Your task to perform on an android device: What's on my calendar today? Image 0: 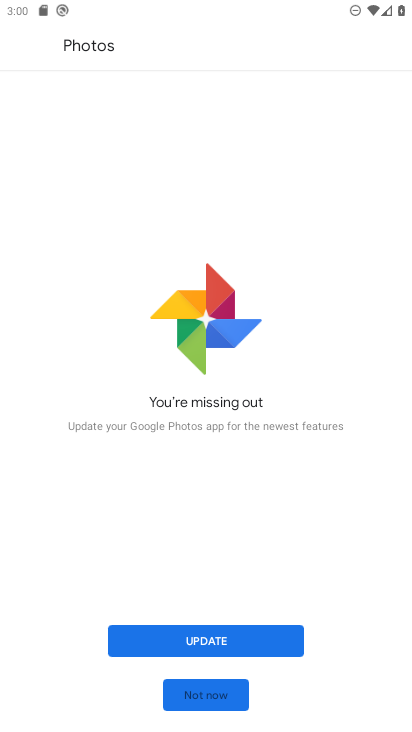
Step 0: press home button
Your task to perform on an android device: What's on my calendar today? Image 1: 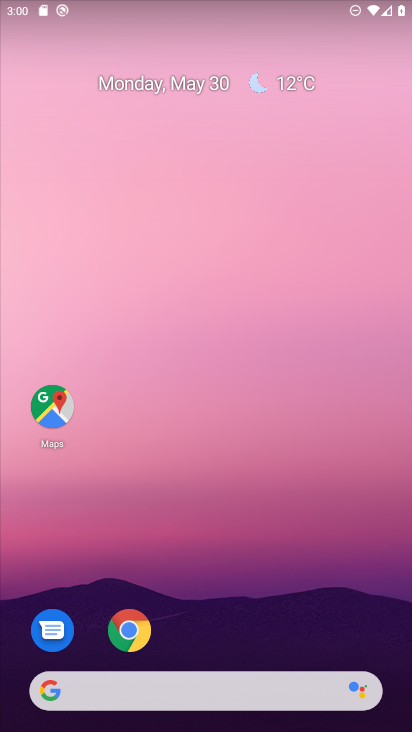
Step 1: drag from (177, 680) to (145, 164)
Your task to perform on an android device: What's on my calendar today? Image 2: 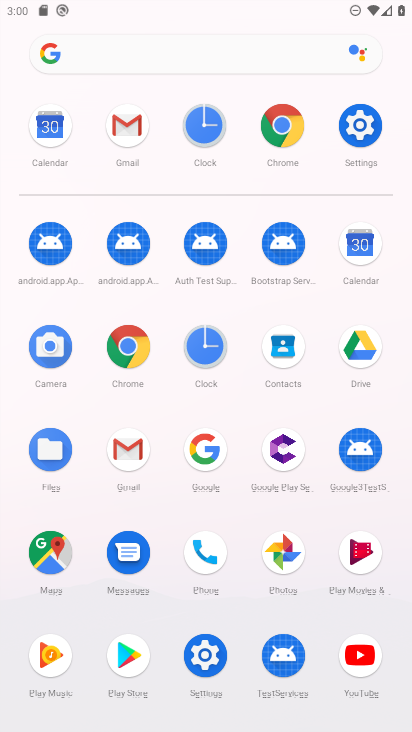
Step 2: click (374, 252)
Your task to perform on an android device: What's on my calendar today? Image 3: 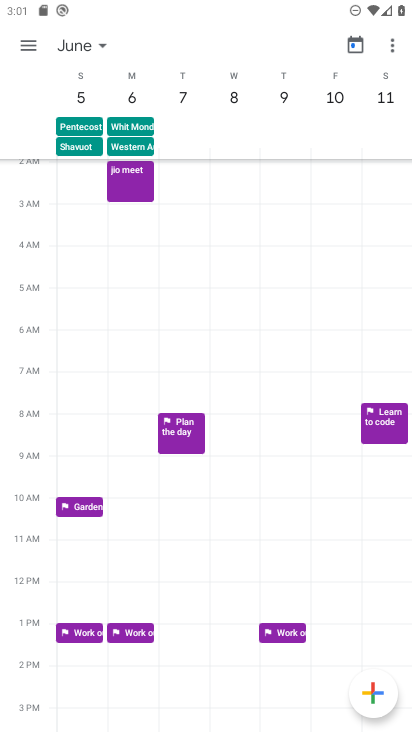
Step 3: click (24, 43)
Your task to perform on an android device: What's on my calendar today? Image 4: 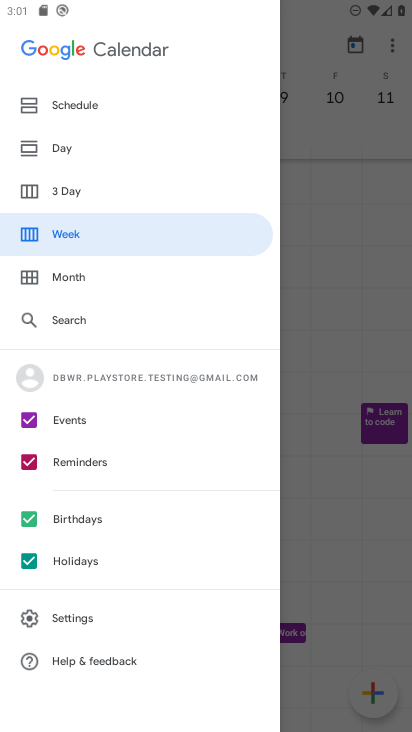
Step 4: click (96, 105)
Your task to perform on an android device: What's on my calendar today? Image 5: 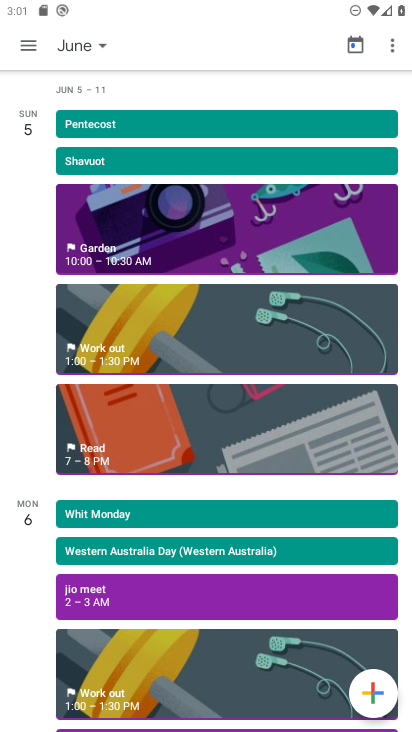
Step 5: click (85, 51)
Your task to perform on an android device: What's on my calendar today? Image 6: 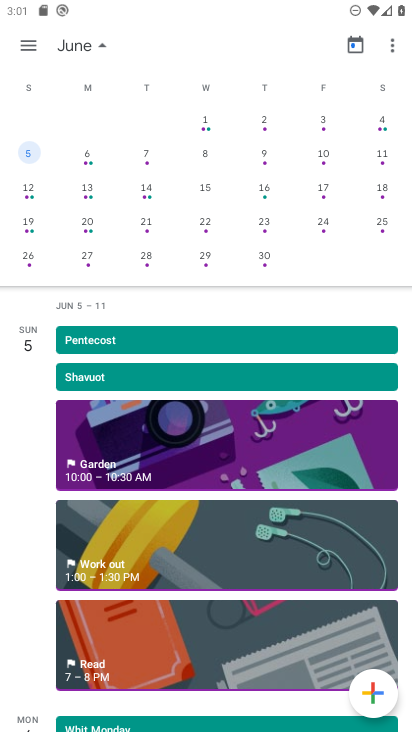
Step 6: drag from (44, 226) to (346, 225)
Your task to perform on an android device: What's on my calendar today? Image 7: 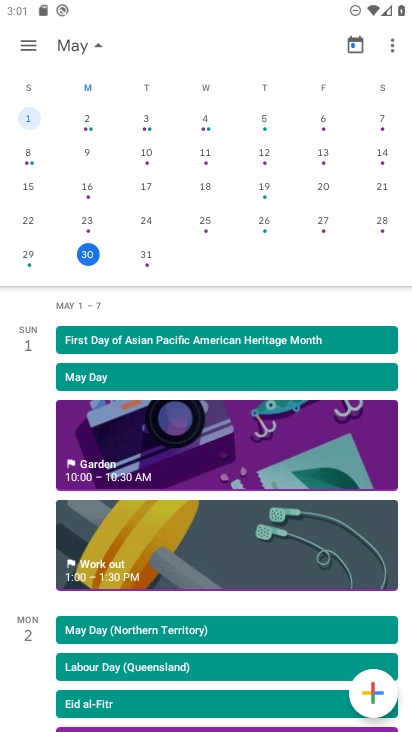
Step 7: click (89, 250)
Your task to perform on an android device: What's on my calendar today? Image 8: 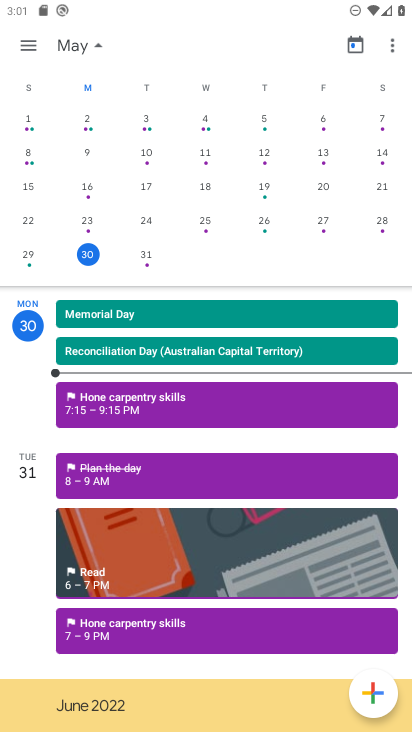
Step 8: click (92, 35)
Your task to perform on an android device: What's on my calendar today? Image 9: 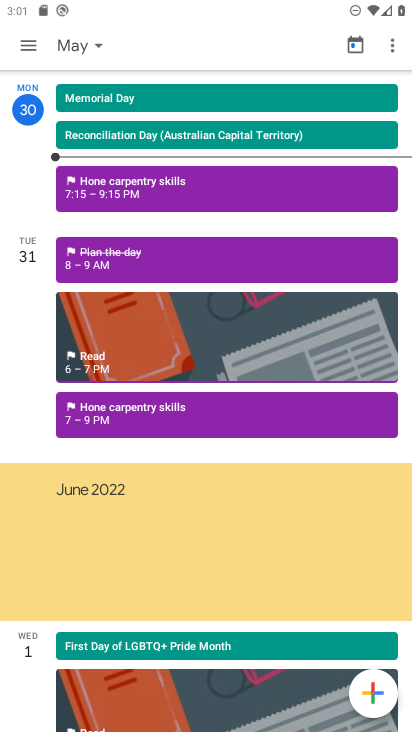
Step 9: task complete